Your task to perform on an android device: Search for "apple airpods pro" on target.com, select the first entry, add it to the cart, then select checkout. Image 0: 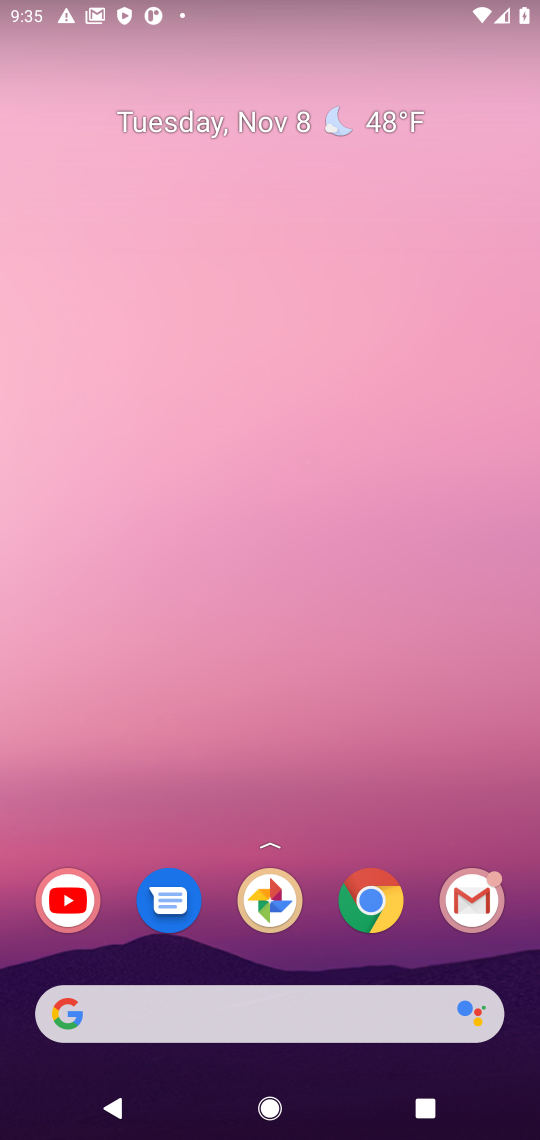
Step 0: click (369, 896)
Your task to perform on an android device: Search for "apple airpods pro" on target.com, select the first entry, add it to the cart, then select checkout. Image 1: 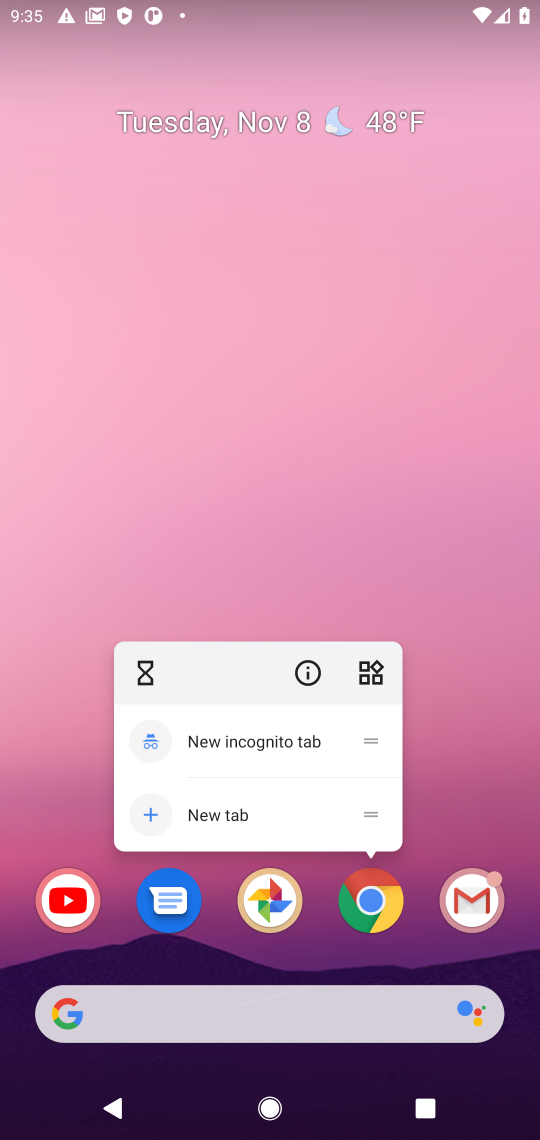
Step 1: click (371, 896)
Your task to perform on an android device: Search for "apple airpods pro" on target.com, select the first entry, add it to the cart, then select checkout. Image 2: 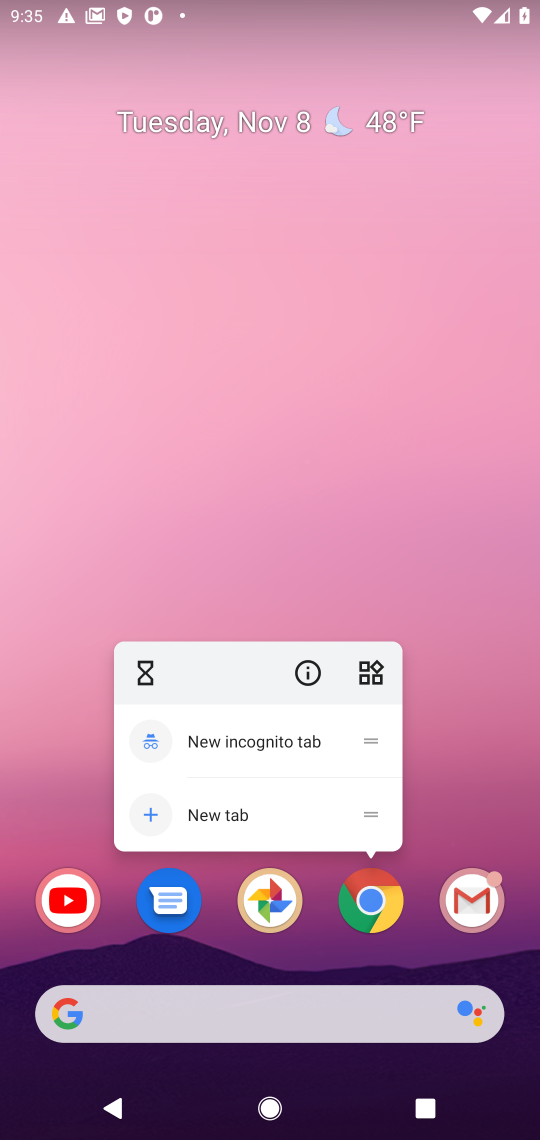
Step 2: click (371, 896)
Your task to perform on an android device: Search for "apple airpods pro" on target.com, select the first entry, add it to the cart, then select checkout. Image 3: 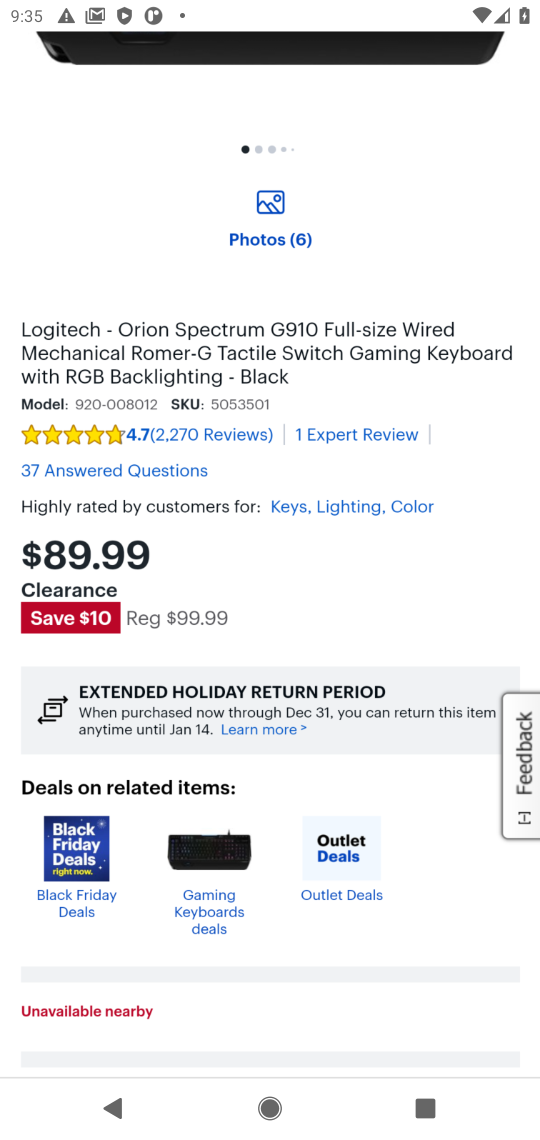
Step 3: click (371, 896)
Your task to perform on an android device: Search for "apple airpods pro" on target.com, select the first entry, add it to the cart, then select checkout. Image 4: 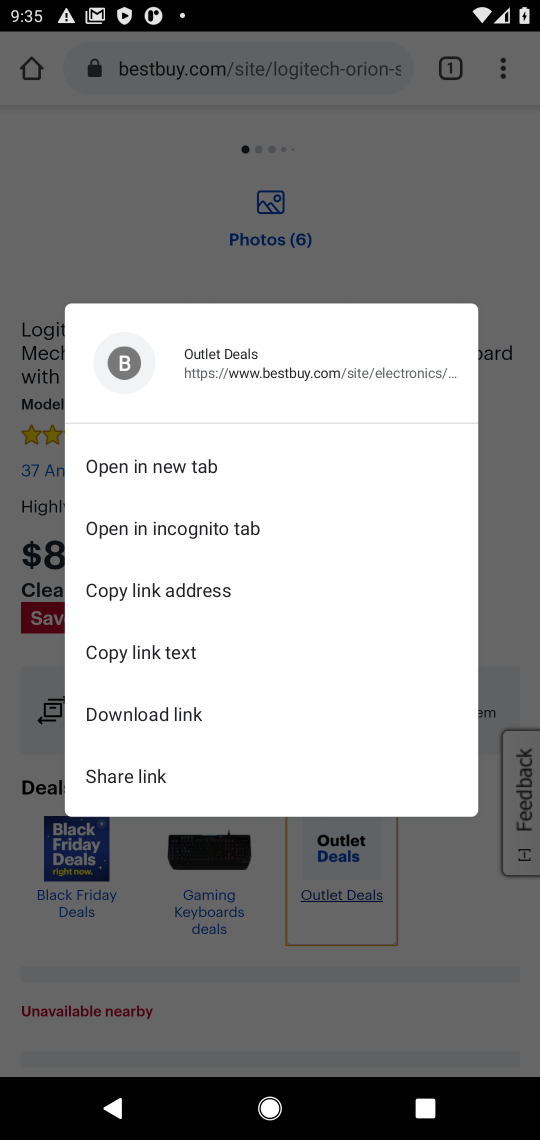
Step 4: click (240, 58)
Your task to perform on an android device: Search for "apple airpods pro" on target.com, select the first entry, add it to the cart, then select checkout. Image 5: 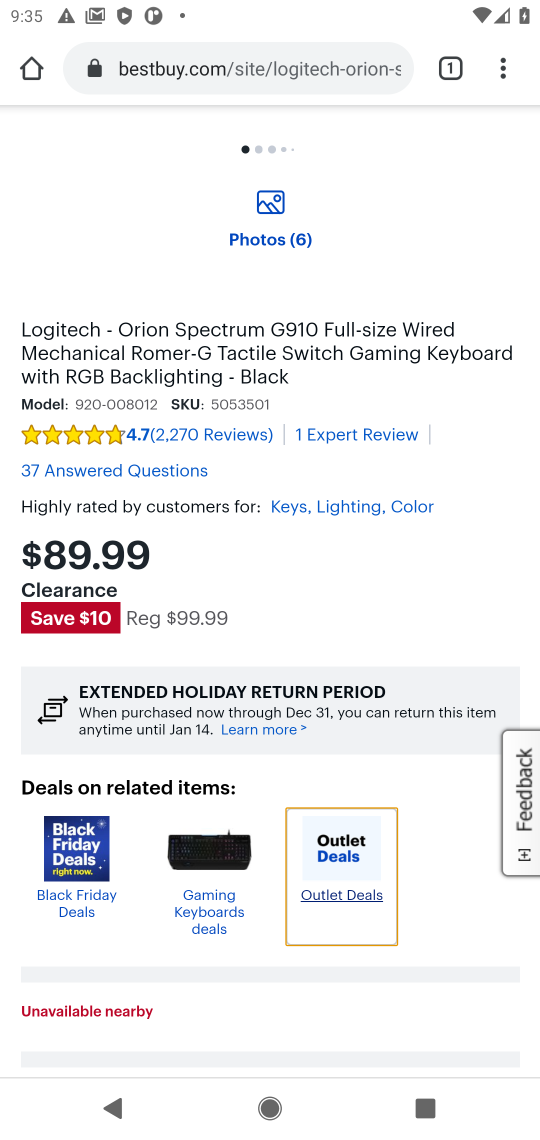
Step 5: click (178, 81)
Your task to perform on an android device: Search for "apple airpods pro" on target.com, select the first entry, add it to the cart, then select checkout. Image 6: 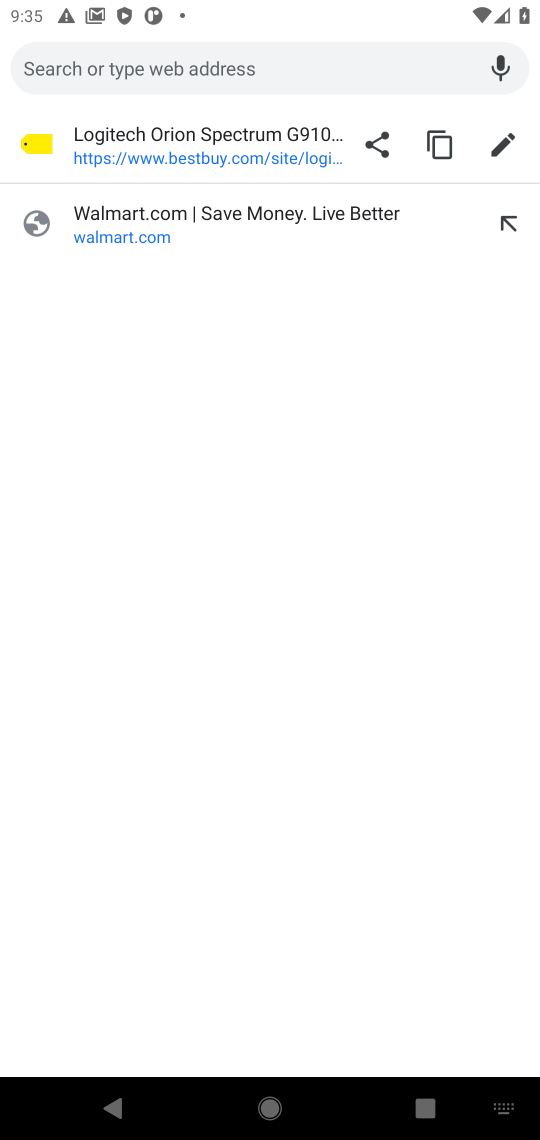
Step 6: type "target "
Your task to perform on an android device: Search for "apple airpods pro" on target.com, select the first entry, add it to the cart, then select checkout. Image 7: 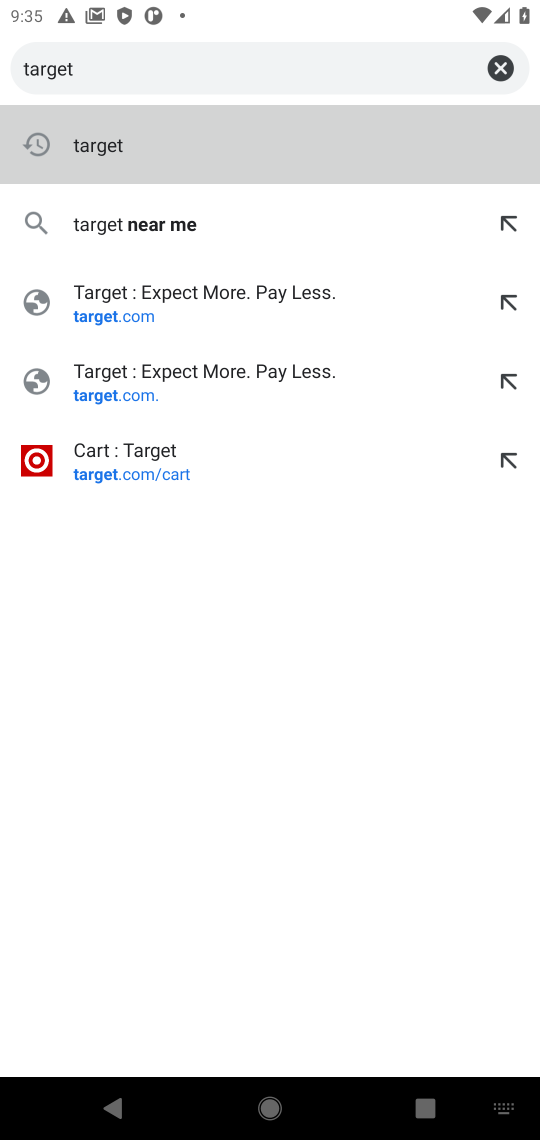
Step 7: type ""
Your task to perform on an android device: Search for "apple airpods pro" on target.com, select the first entry, add it to the cart, then select checkout. Image 8: 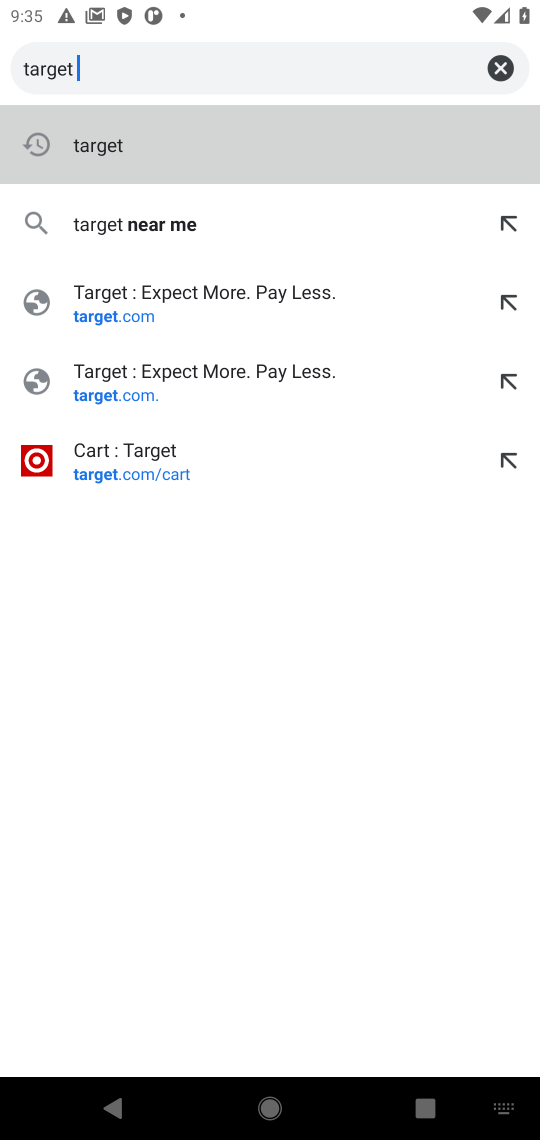
Step 8: click (83, 477)
Your task to perform on an android device: Search for "apple airpods pro" on target.com, select the first entry, add it to the cart, then select checkout. Image 9: 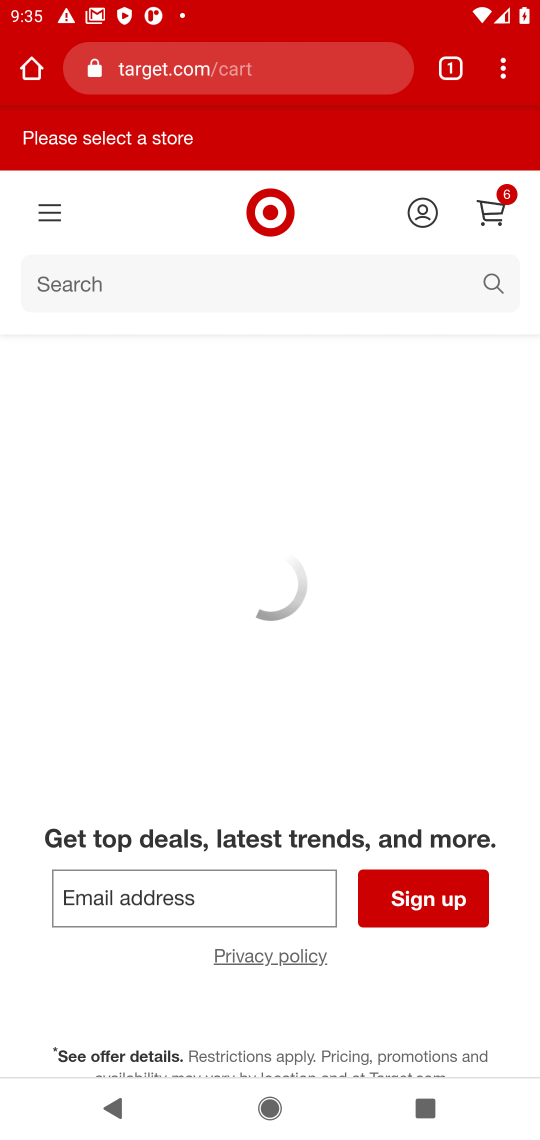
Step 9: click (244, 286)
Your task to perform on an android device: Search for "apple airpods pro" on target.com, select the first entry, add it to the cart, then select checkout. Image 10: 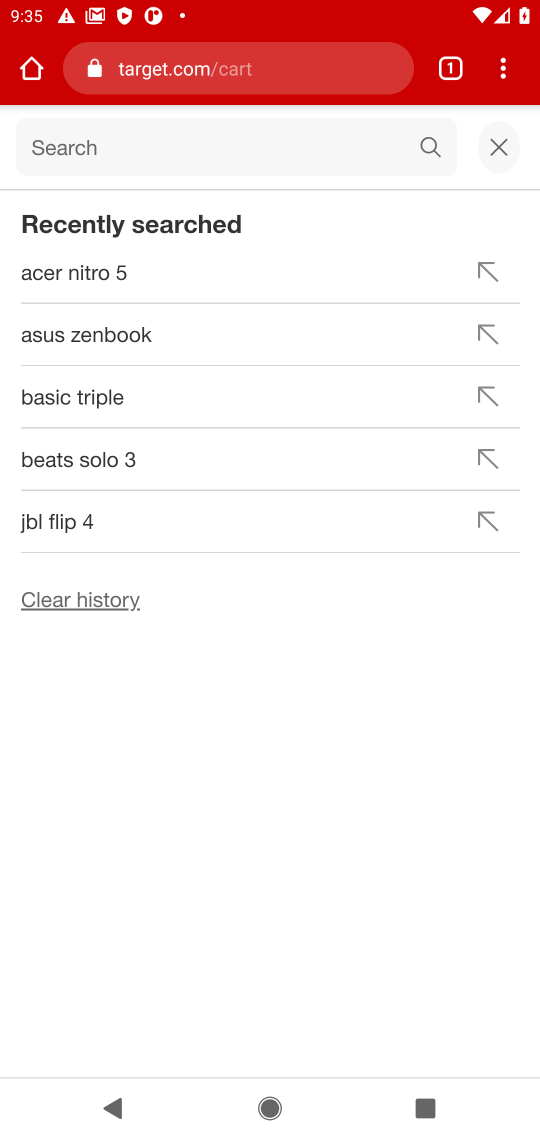
Step 10: type "apple airpods pro"
Your task to perform on an android device: Search for "apple airpods pro" on target.com, select the first entry, add it to the cart, then select checkout. Image 11: 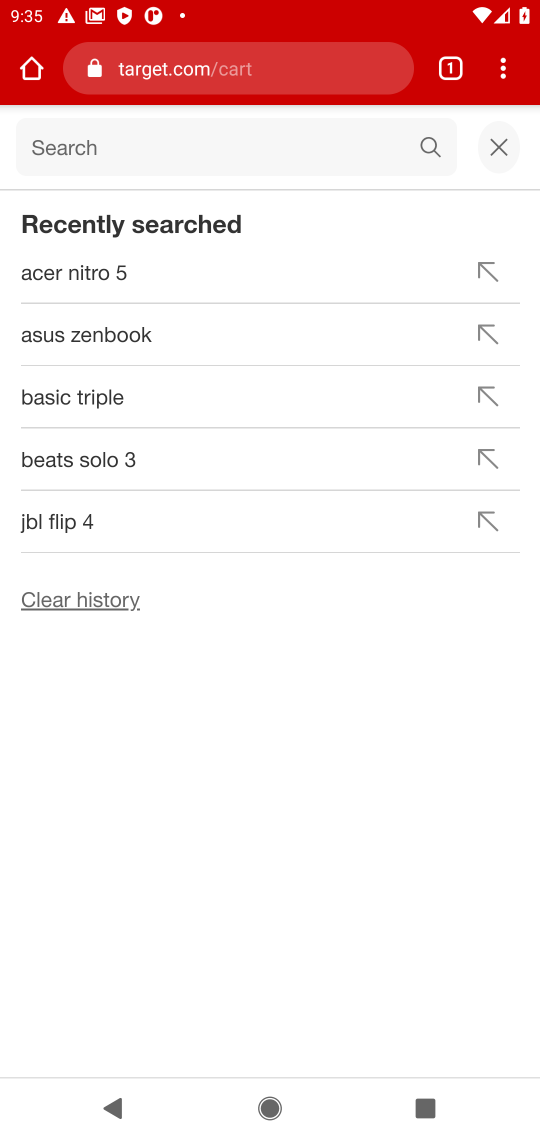
Step 11: type ""
Your task to perform on an android device: Search for "apple airpods pro" on target.com, select the first entry, add it to the cart, then select checkout. Image 12: 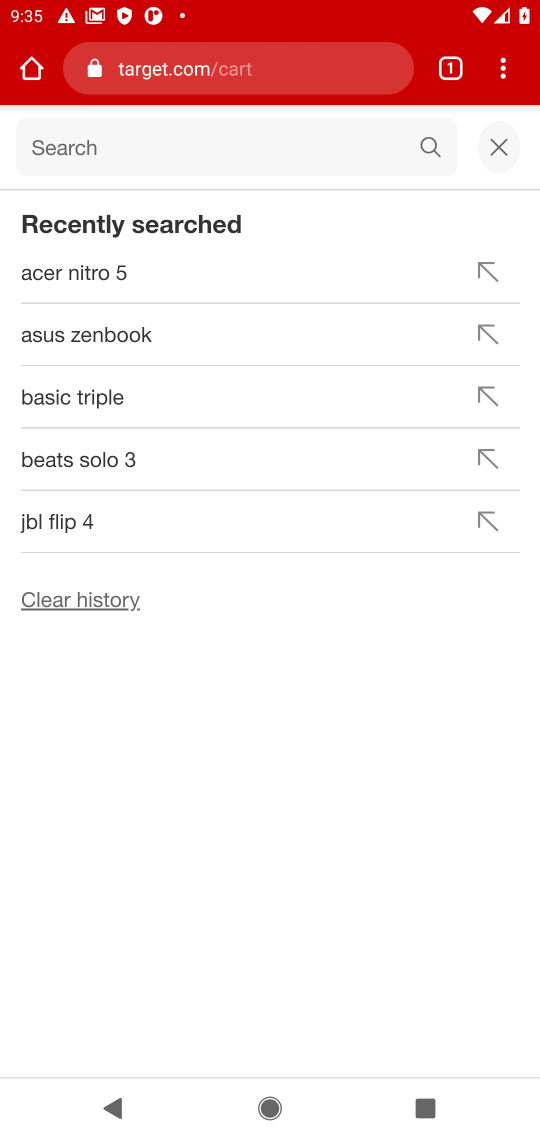
Step 12: click (432, 140)
Your task to perform on an android device: Search for "apple airpods pro" on target.com, select the first entry, add it to the cart, then select checkout. Image 13: 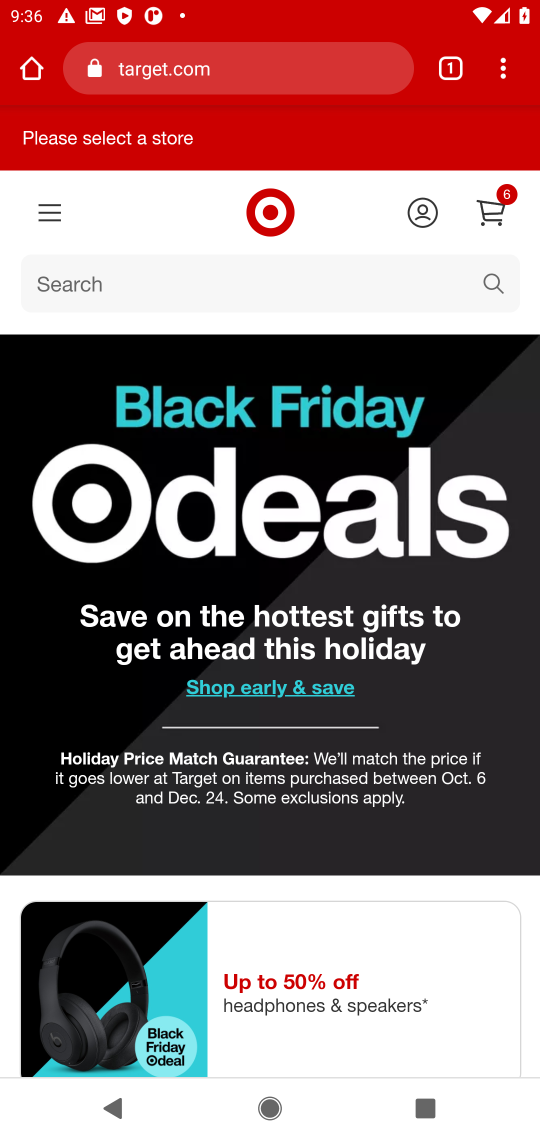
Step 13: click (344, 272)
Your task to perform on an android device: Search for "apple airpods pro" on target.com, select the first entry, add it to the cart, then select checkout. Image 14: 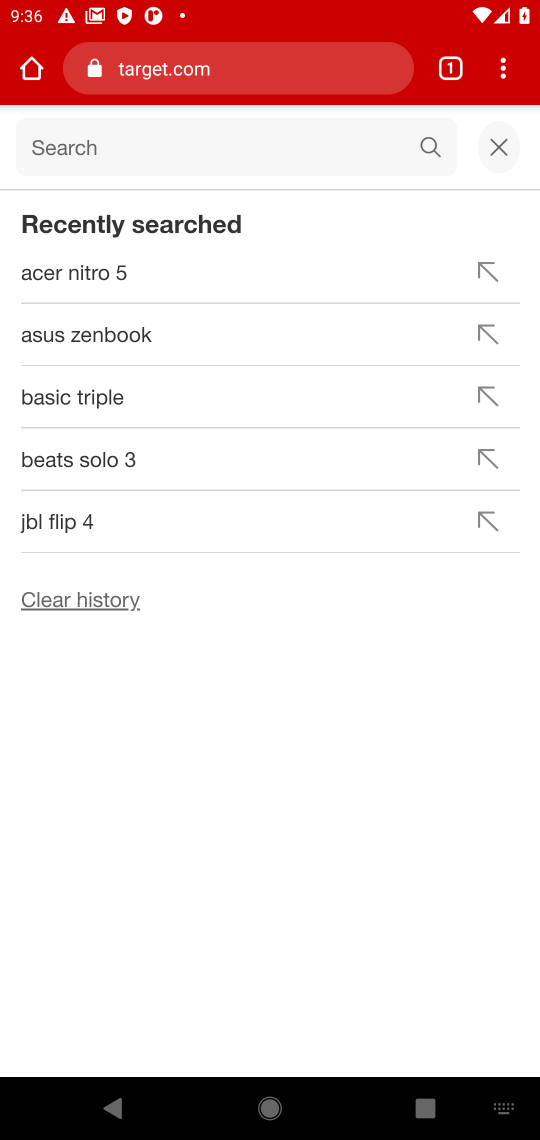
Step 14: type "apple airpods pro"
Your task to perform on an android device: Search for "apple airpods pro" on target.com, select the first entry, add it to the cart, then select checkout. Image 15: 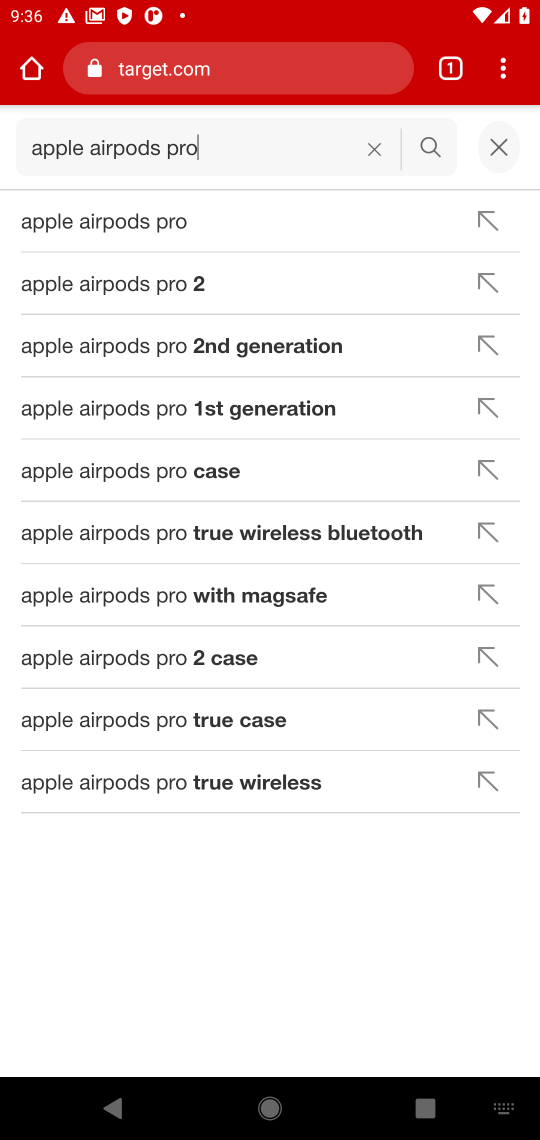
Step 15: click (83, 303)
Your task to perform on an android device: Search for "apple airpods pro" on target.com, select the first entry, add it to the cart, then select checkout. Image 16: 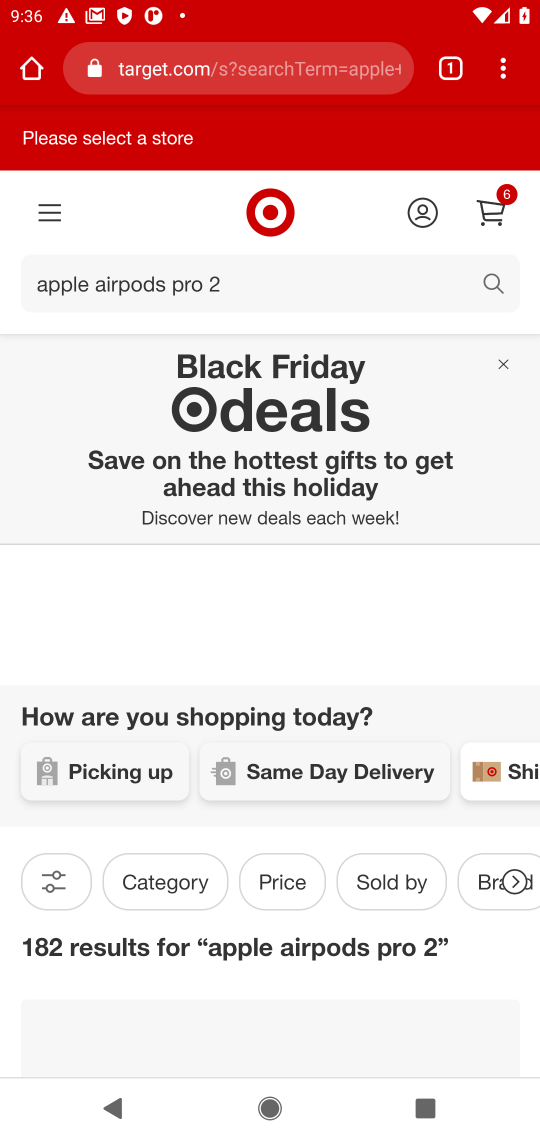
Step 16: drag from (199, 974) to (228, 435)
Your task to perform on an android device: Search for "apple airpods pro" on target.com, select the first entry, add it to the cart, then select checkout. Image 17: 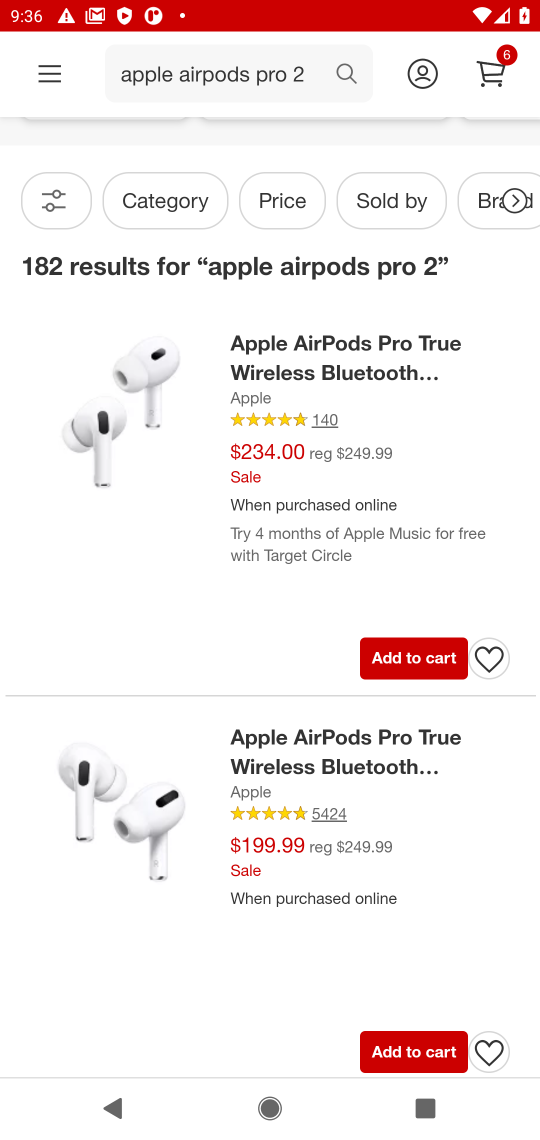
Step 17: click (297, 745)
Your task to perform on an android device: Search for "apple airpods pro" on target.com, select the first entry, add it to the cart, then select checkout. Image 18: 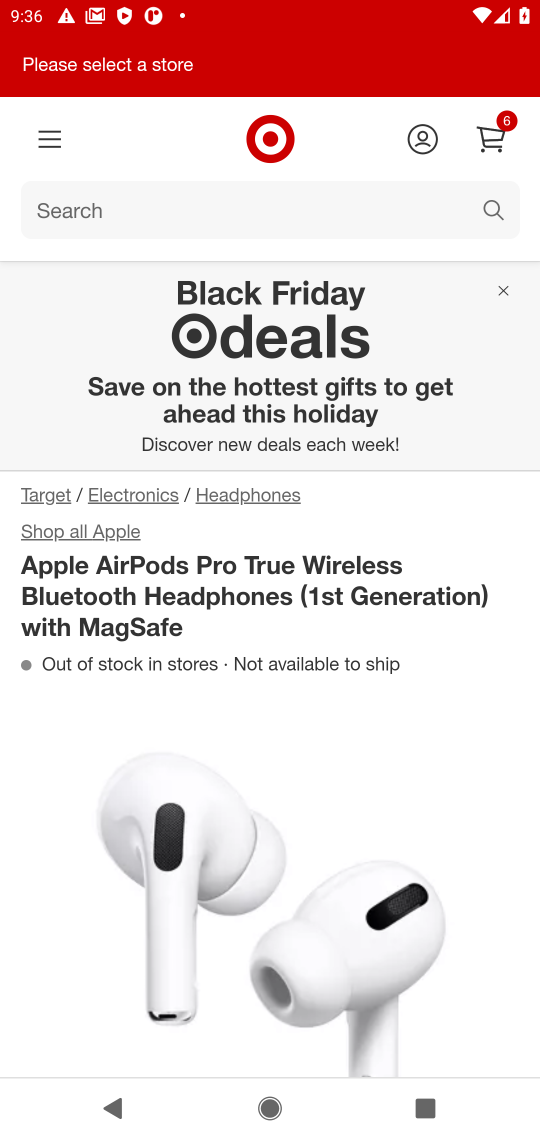
Step 18: drag from (73, 827) to (139, 273)
Your task to perform on an android device: Search for "apple airpods pro" on target.com, select the first entry, add it to the cart, then select checkout. Image 19: 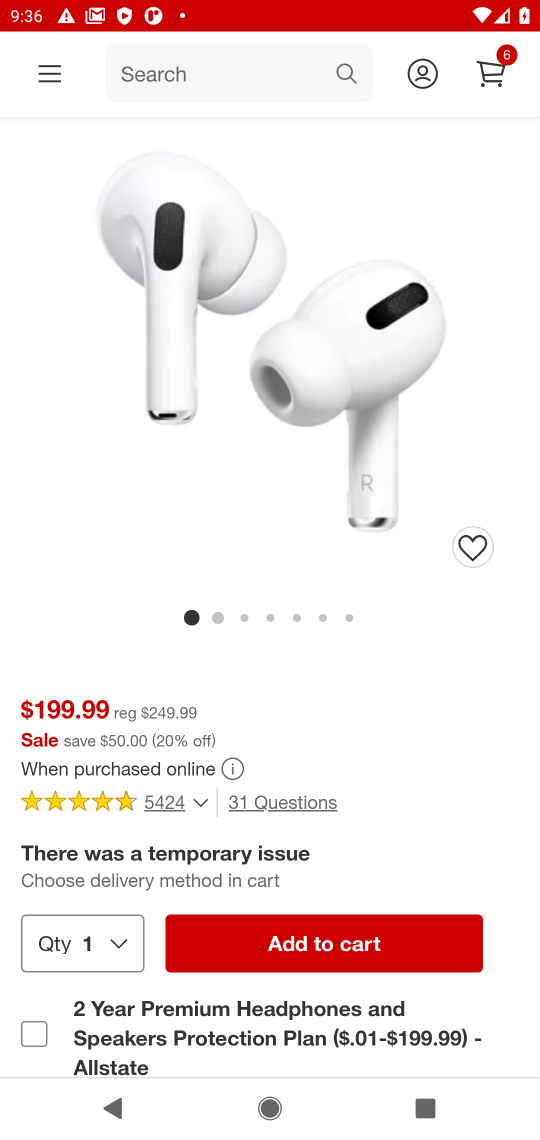
Step 19: drag from (222, 745) to (253, 531)
Your task to perform on an android device: Search for "apple airpods pro" on target.com, select the first entry, add it to the cart, then select checkout. Image 20: 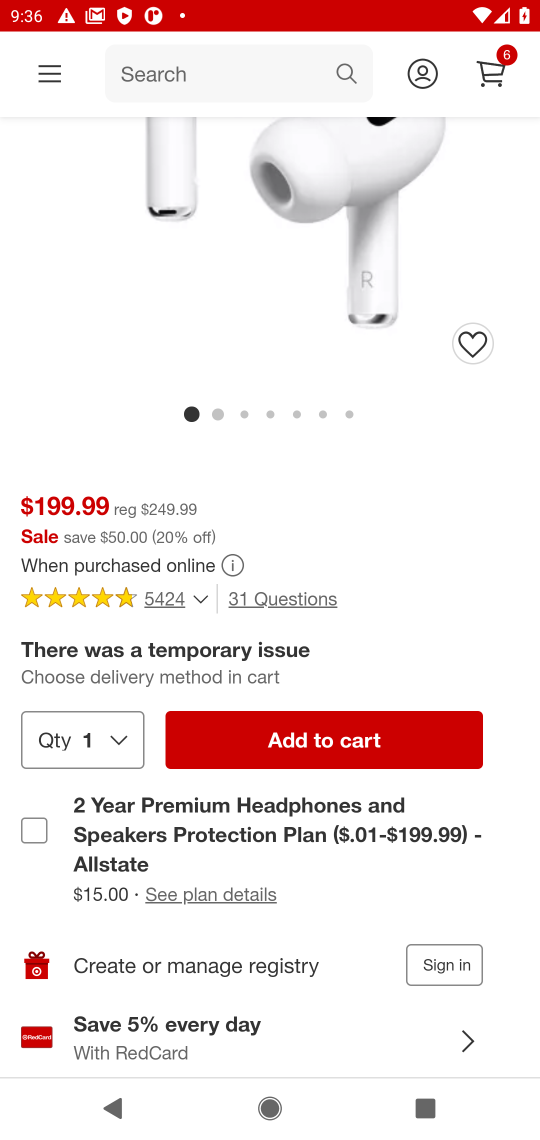
Step 20: click (344, 742)
Your task to perform on an android device: Search for "apple airpods pro" on target.com, select the first entry, add it to the cart, then select checkout. Image 21: 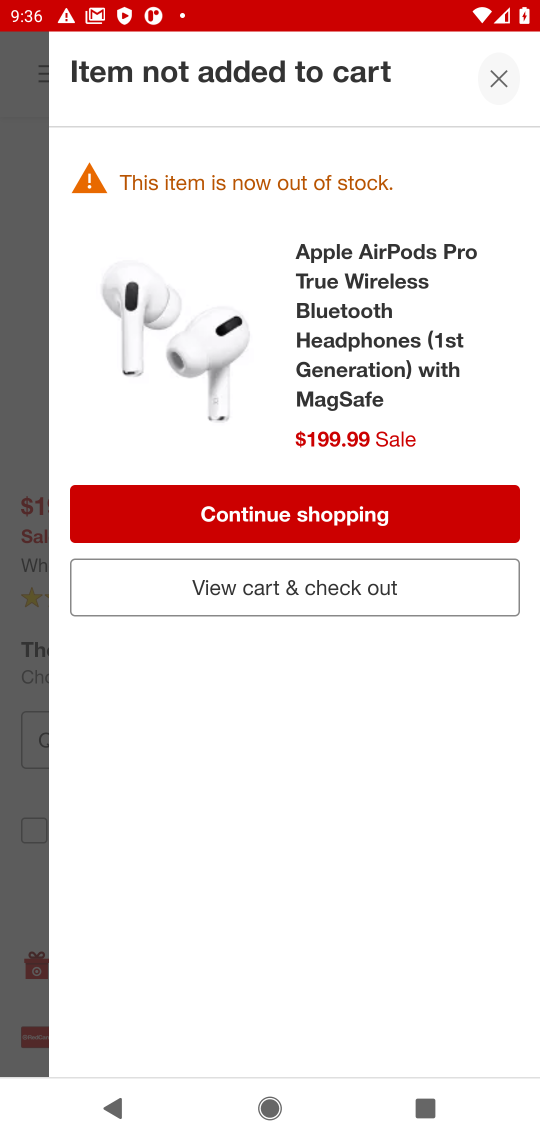
Step 21: click (239, 583)
Your task to perform on an android device: Search for "apple airpods pro" on target.com, select the first entry, add it to the cart, then select checkout. Image 22: 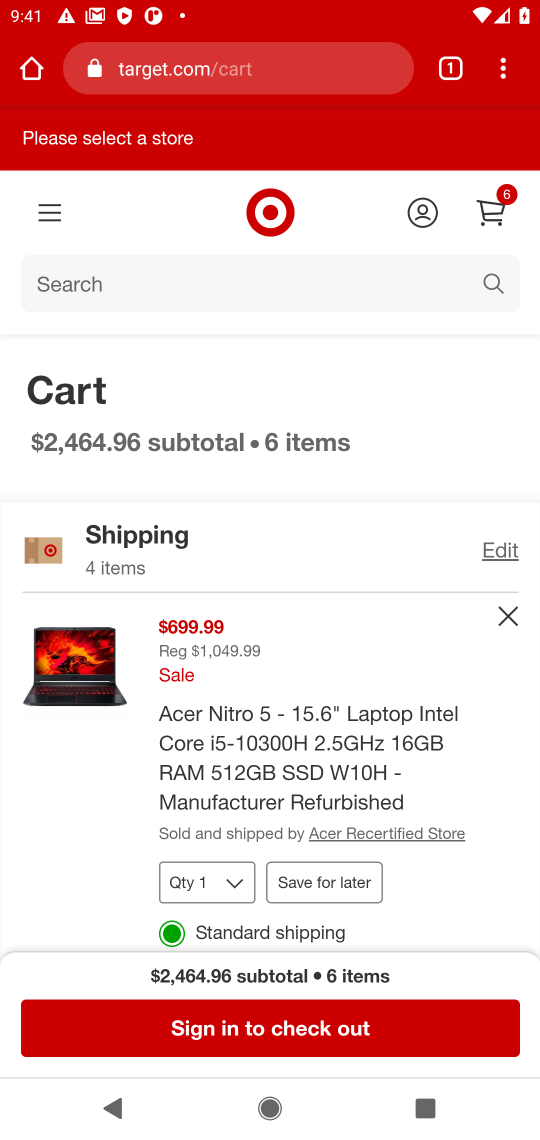
Step 22: task complete